Your task to perform on an android device: uninstall "Adobe Acrobat Reader" Image 0: 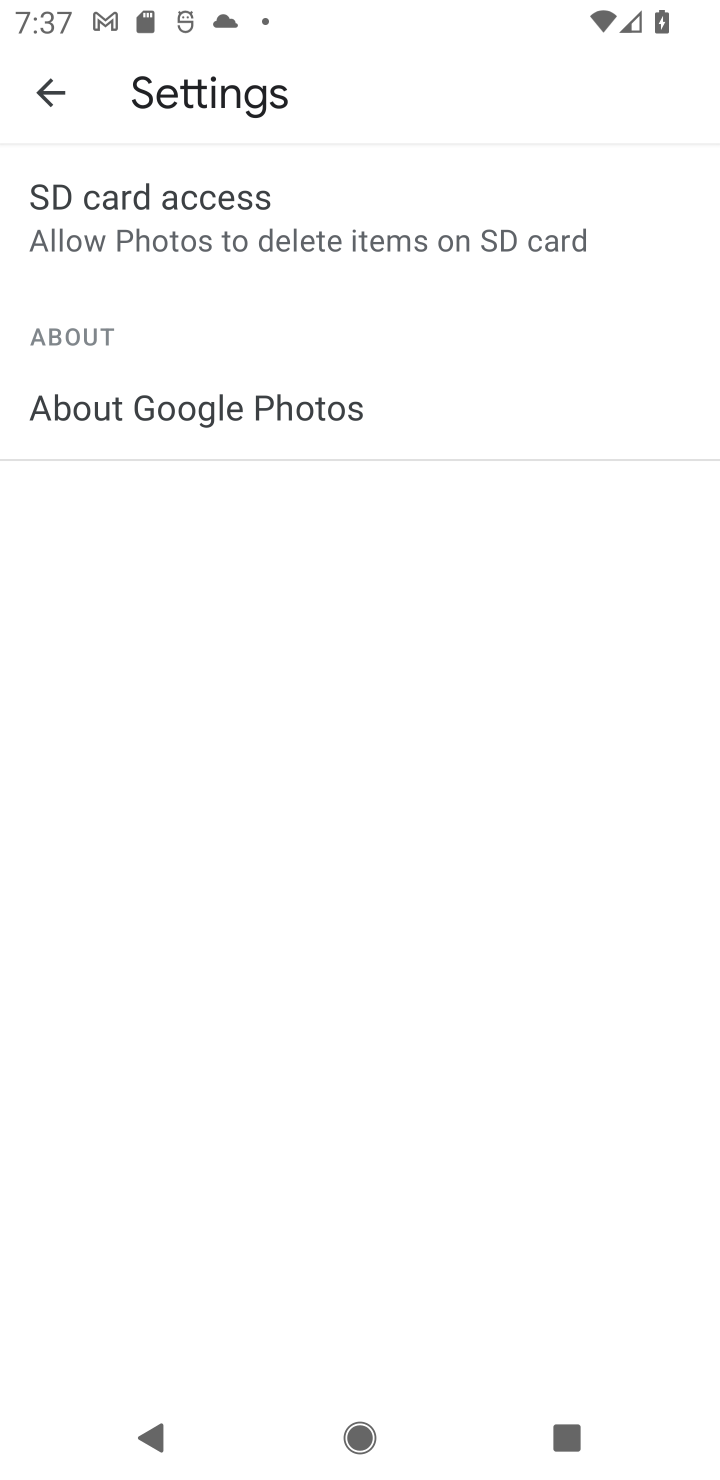
Step 0: press home button
Your task to perform on an android device: uninstall "Adobe Acrobat Reader" Image 1: 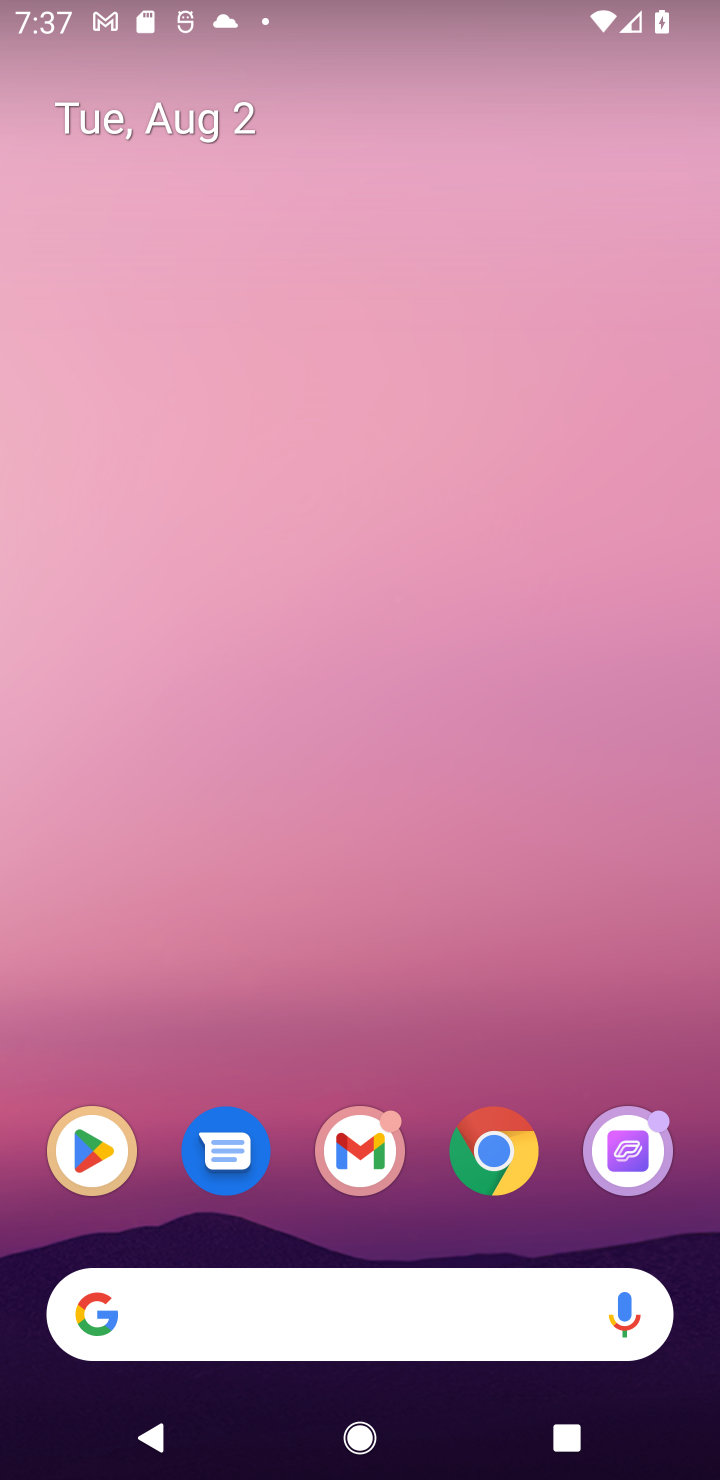
Step 1: click (95, 1142)
Your task to perform on an android device: uninstall "Adobe Acrobat Reader" Image 2: 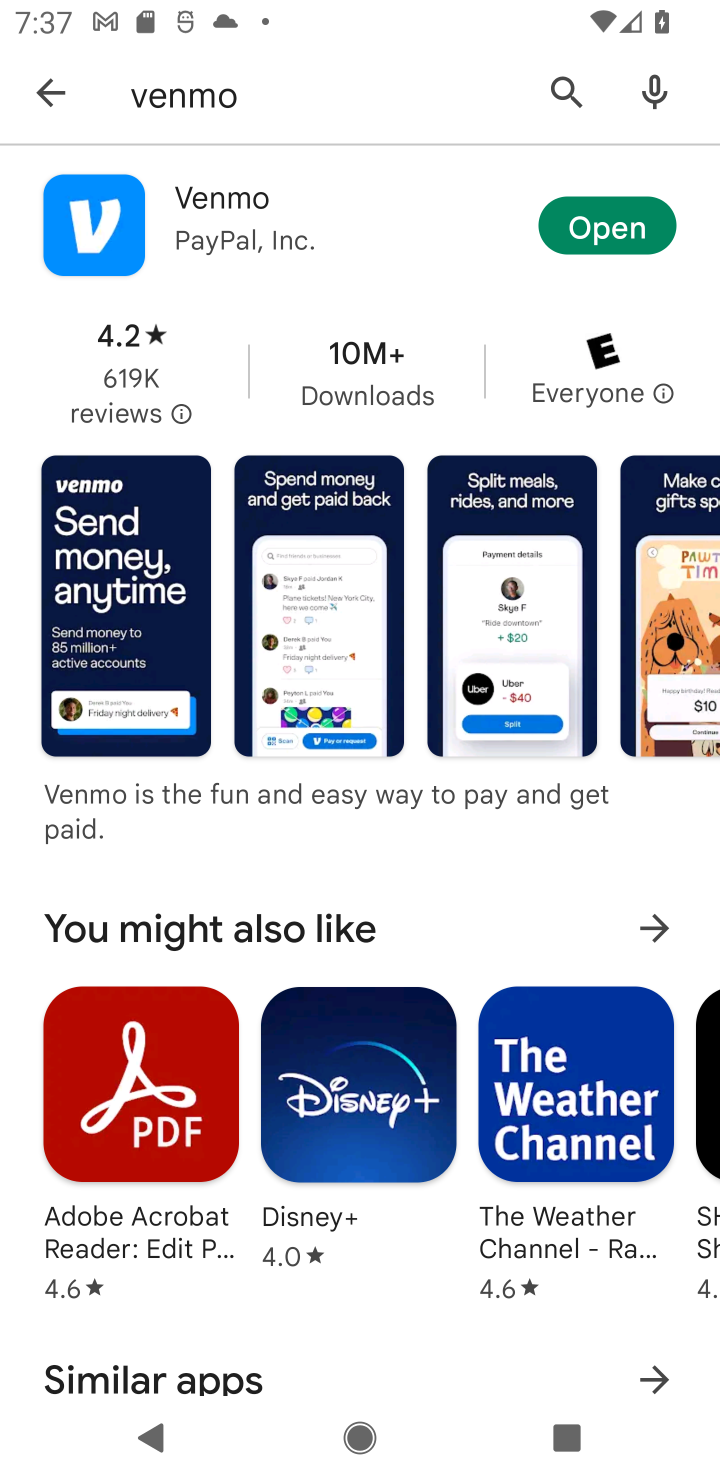
Step 2: click (562, 90)
Your task to perform on an android device: uninstall "Adobe Acrobat Reader" Image 3: 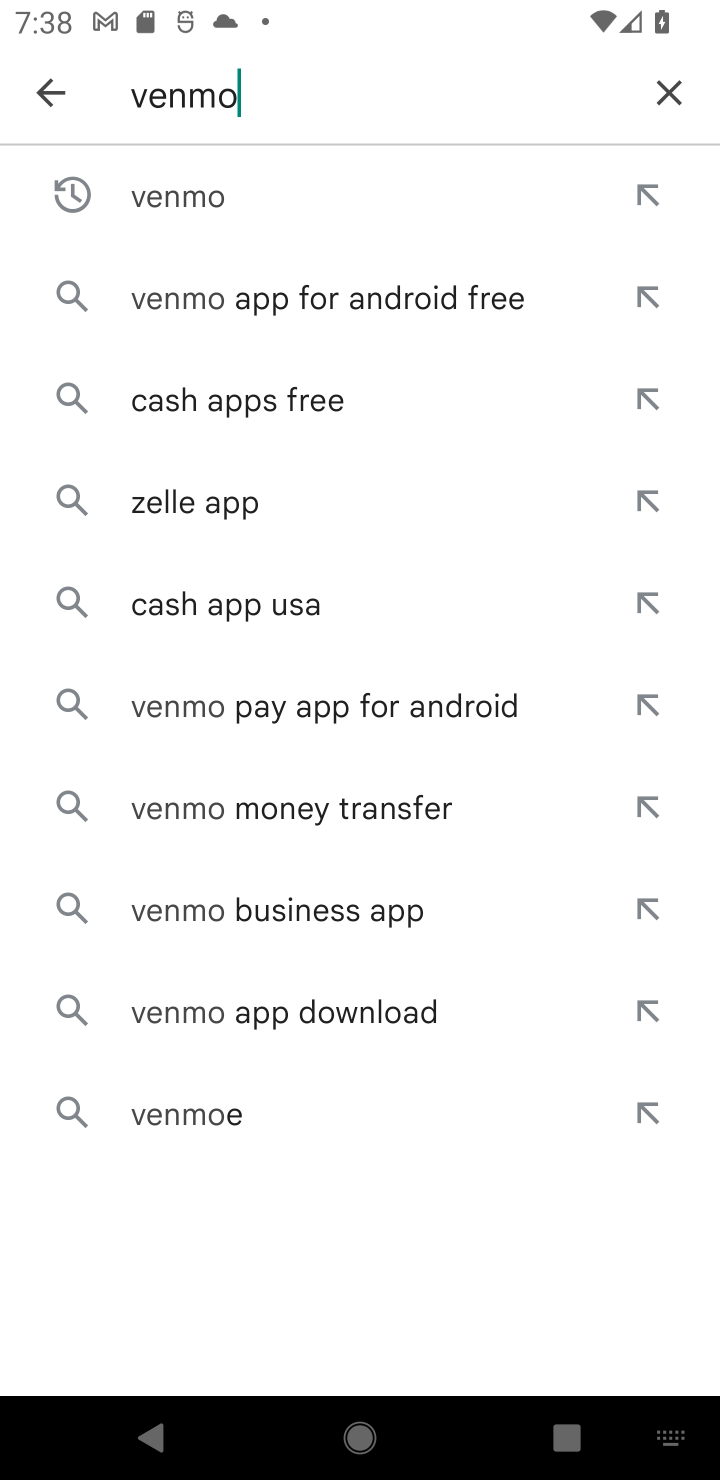
Step 3: click (666, 80)
Your task to perform on an android device: uninstall "Adobe Acrobat Reader" Image 4: 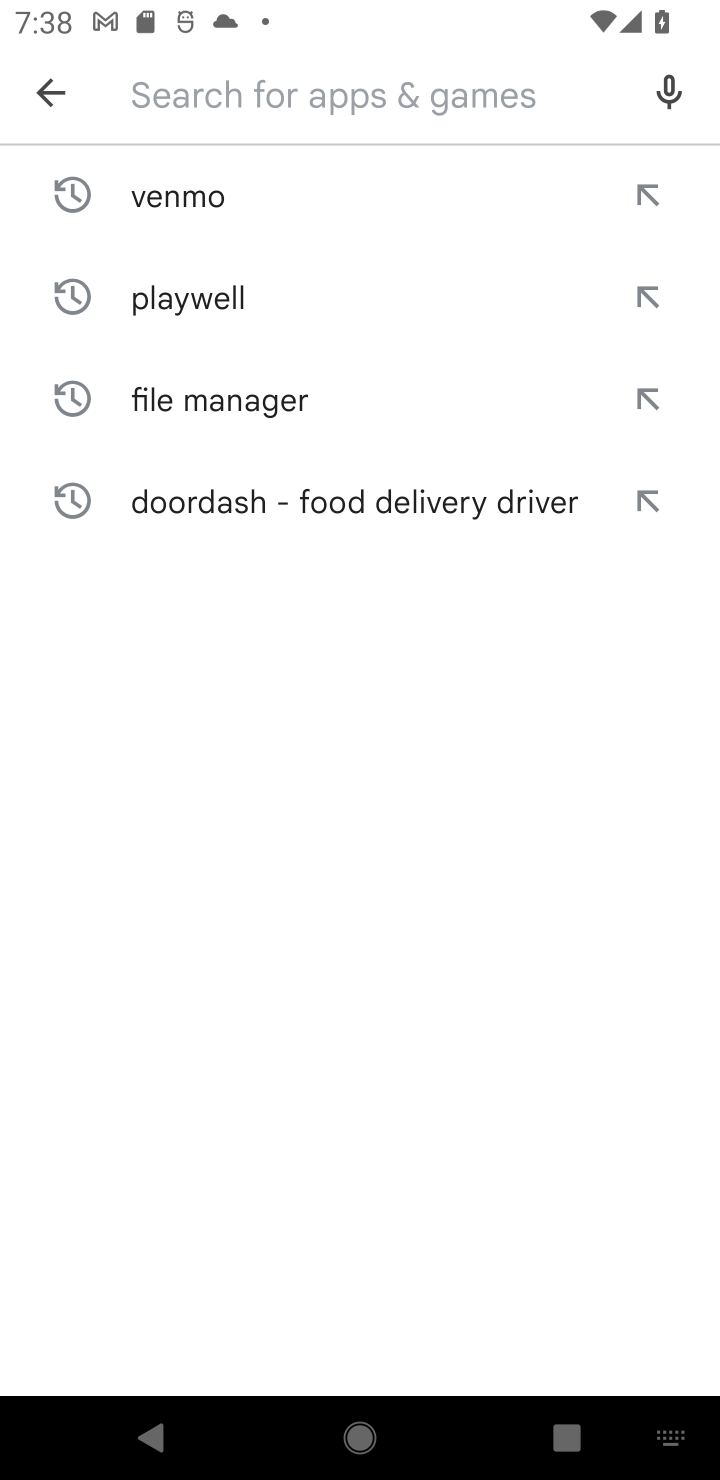
Step 4: type "Adobe Acrobat Reader"
Your task to perform on an android device: uninstall "Adobe Acrobat Reader" Image 5: 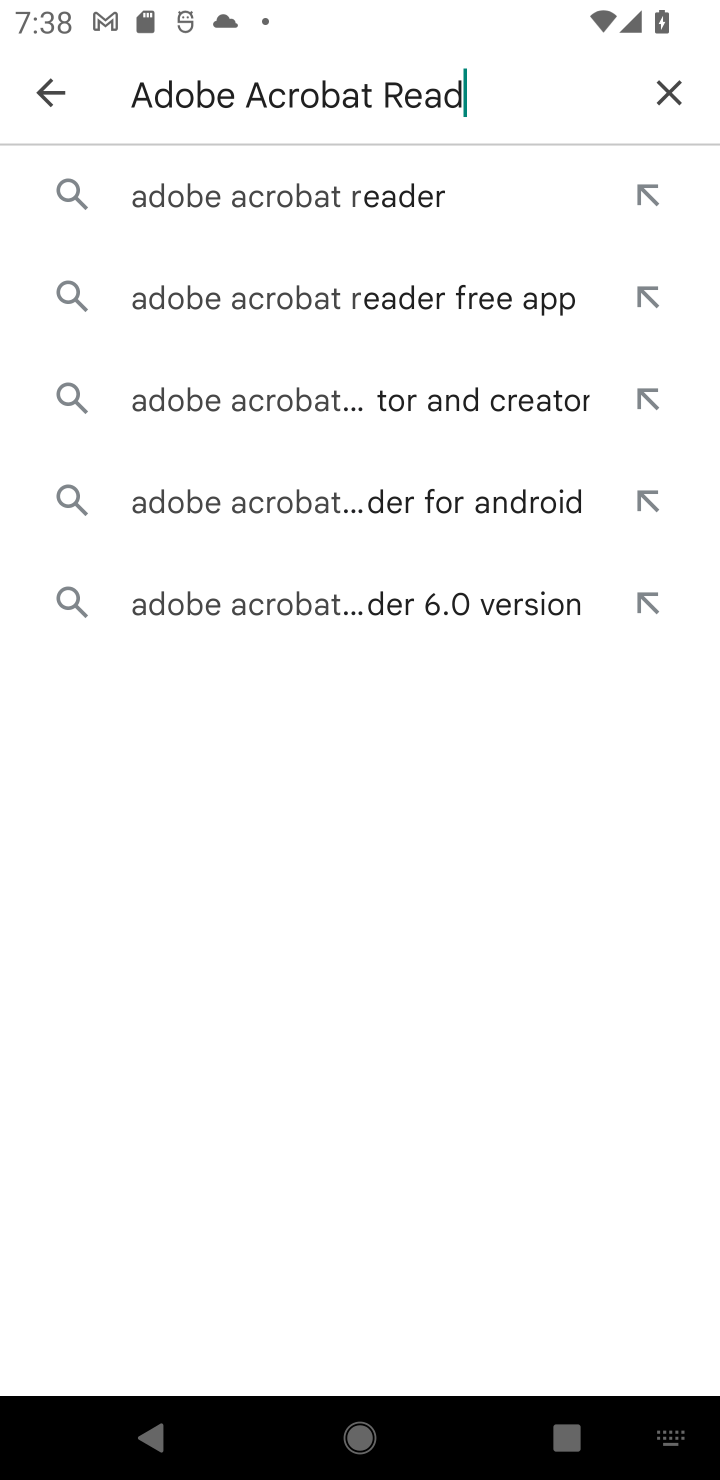
Step 5: type ""
Your task to perform on an android device: uninstall "Adobe Acrobat Reader" Image 6: 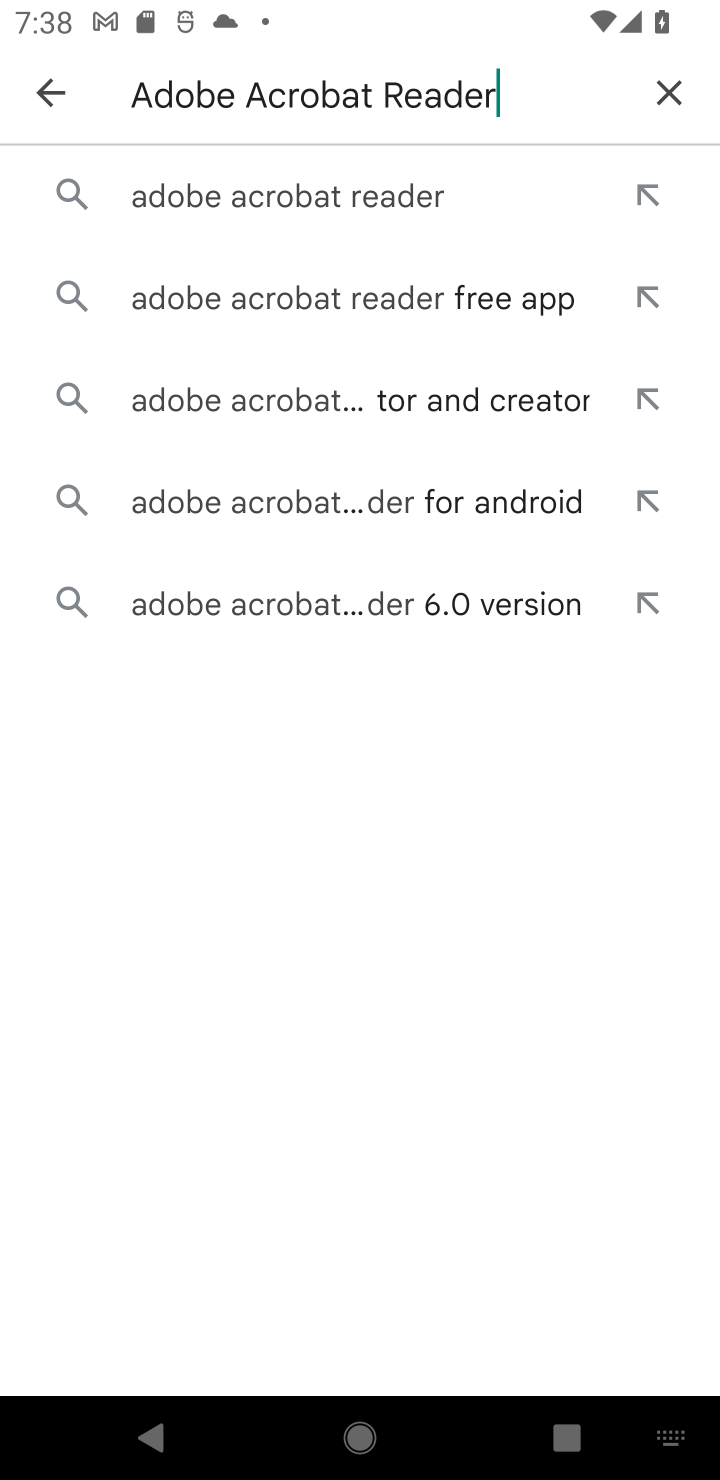
Step 6: click (206, 205)
Your task to perform on an android device: uninstall "Adobe Acrobat Reader" Image 7: 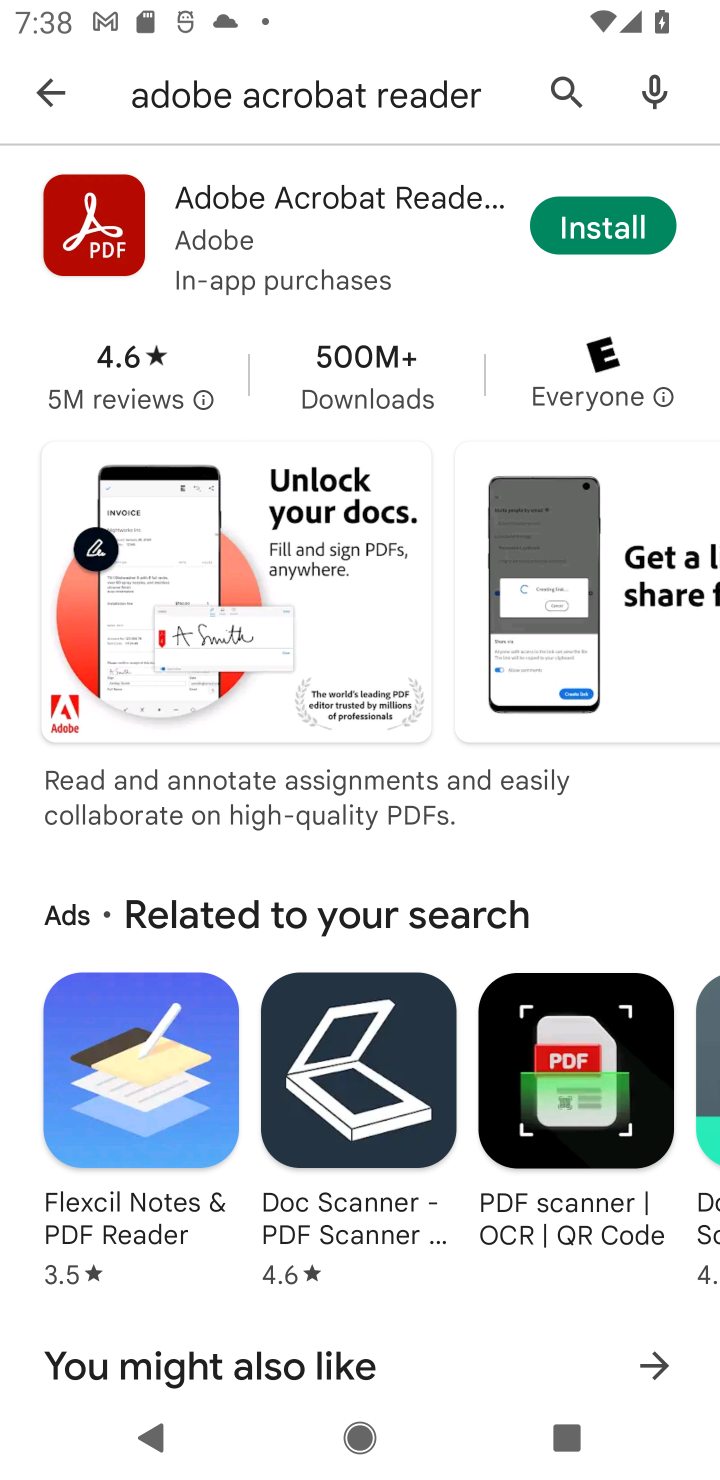
Step 7: task complete